Your task to perform on an android device: Open Google Chrome Image 0: 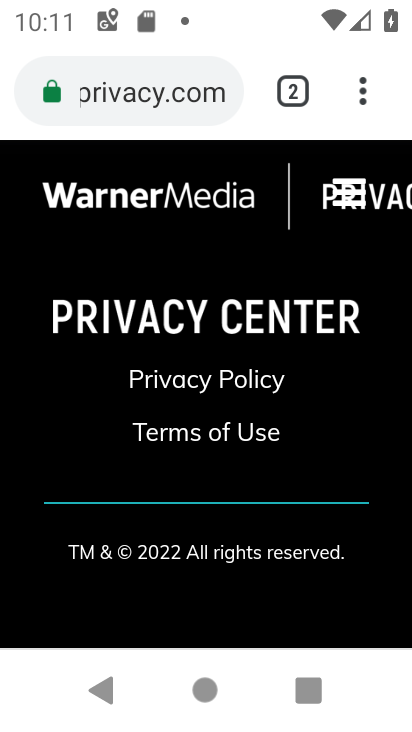
Step 0: task complete